Your task to perform on an android device: Open the phone app and click the voicemail tab. Image 0: 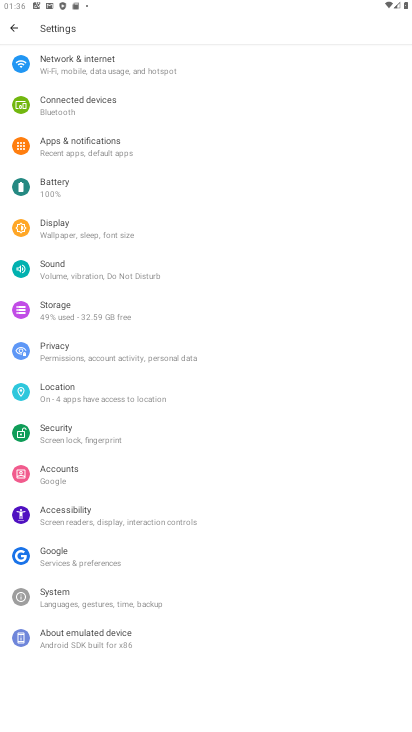
Step 0: press home button
Your task to perform on an android device: Open the phone app and click the voicemail tab. Image 1: 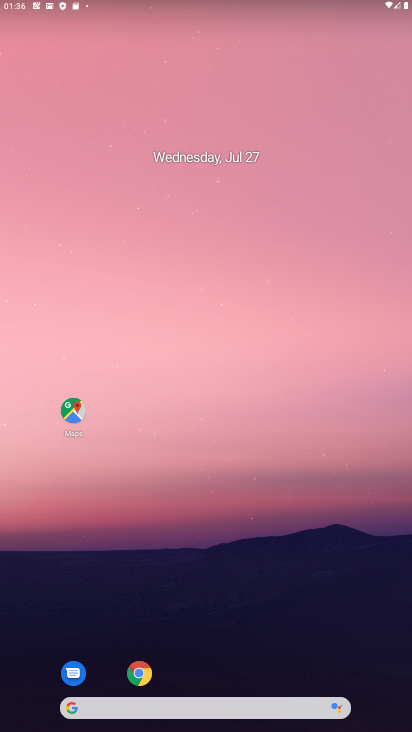
Step 1: drag from (226, 693) to (211, 135)
Your task to perform on an android device: Open the phone app and click the voicemail tab. Image 2: 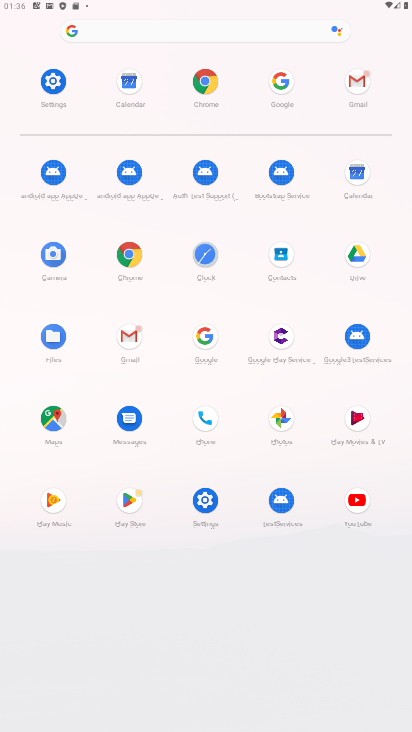
Step 2: click (206, 420)
Your task to perform on an android device: Open the phone app and click the voicemail tab. Image 3: 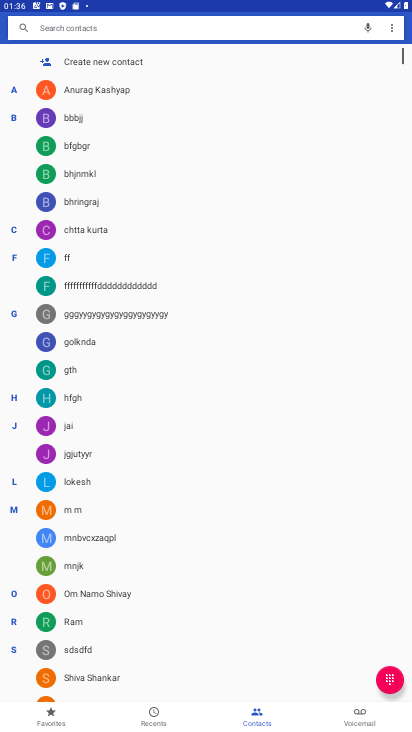
Step 3: click (370, 711)
Your task to perform on an android device: Open the phone app and click the voicemail tab. Image 4: 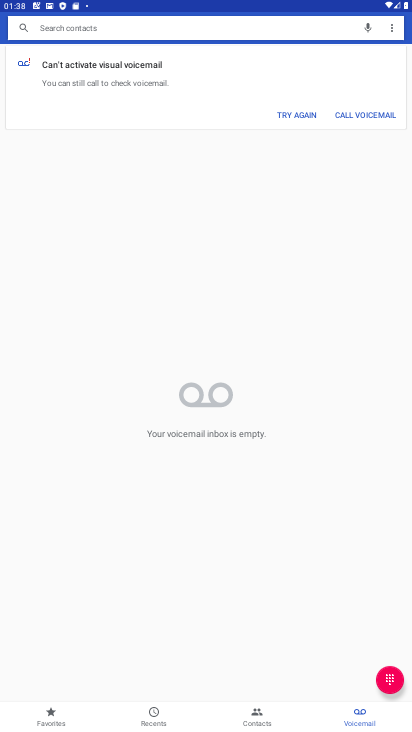
Step 4: task complete